Your task to perform on an android device: Open Google Maps and go to "Timeline" Image 0: 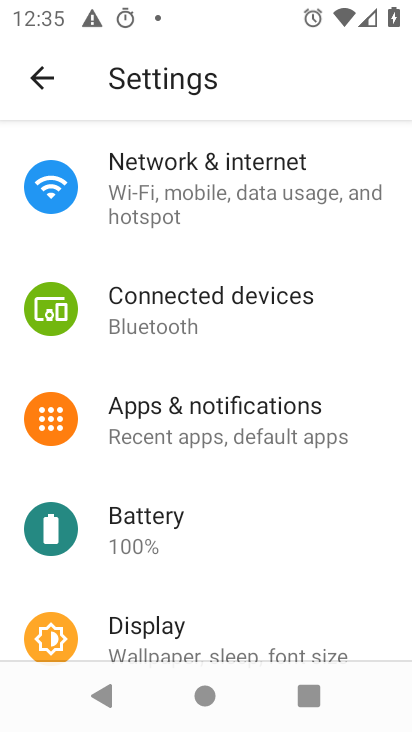
Step 0: press back button
Your task to perform on an android device: Open Google Maps and go to "Timeline" Image 1: 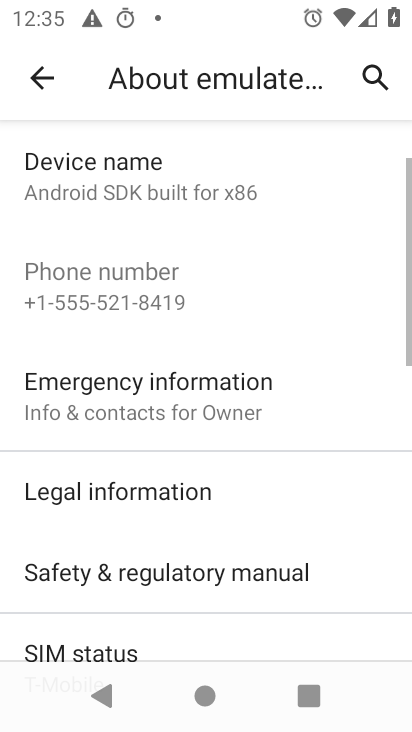
Step 1: press back button
Your task to perform on an android device: Open Google Maps and go to "Timeline" Image 2: 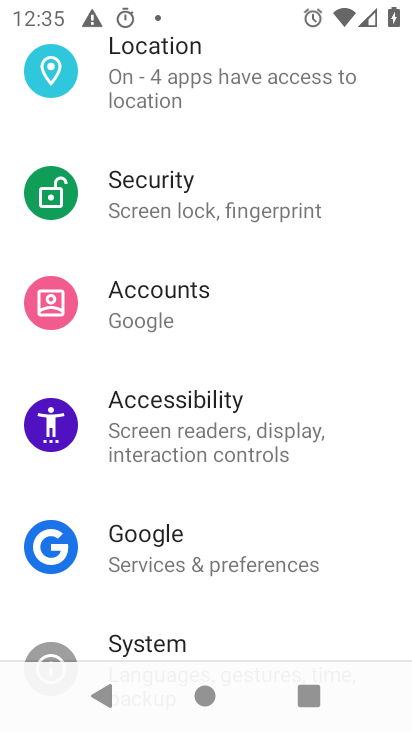
Step 2: press back button
Your task to perform on an android device: Open Google Maps and go to "Timeline" Image 3: 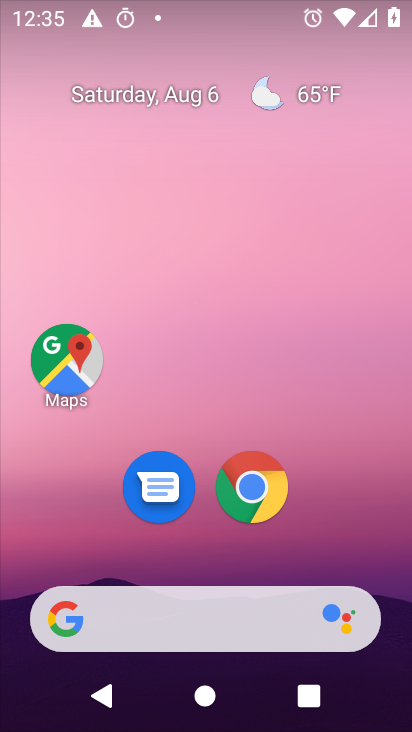
Step 3: click (64, 363)
Your task to perform on an android device: Open Google Maps and go to "Timeline" Image 4: 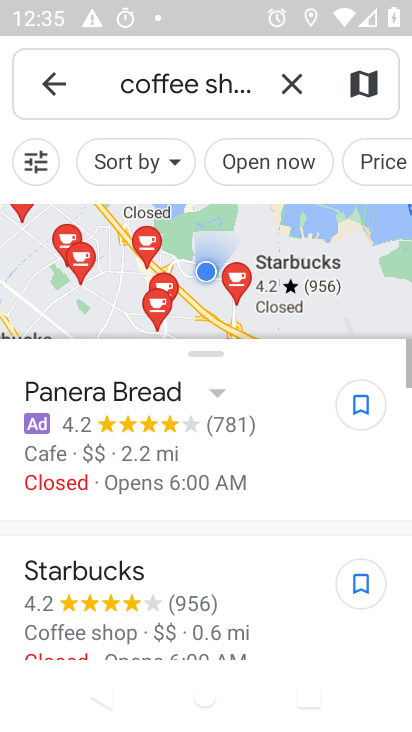
Step 4: click (64, 90)
Your task to perform on an android device: Open Google Maps and go to "Timeline" Image 5: 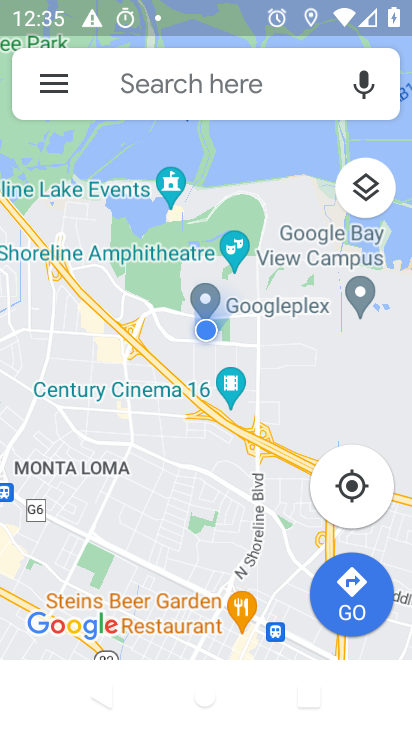
Step 5: press back button
Your task to perform on an android device: Open Google Maps and go to "Timeline" Image 6: 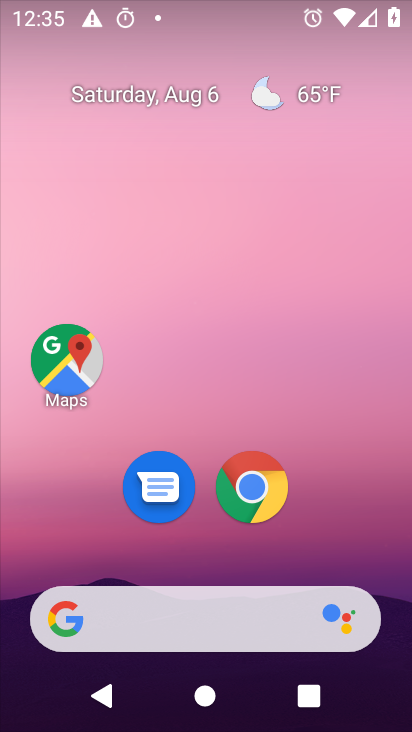
Step 6: drag from (243, 559) to (276, 25)
Your task to perform on an android device: Open Google Maps and go to "Timeline" Image 7: 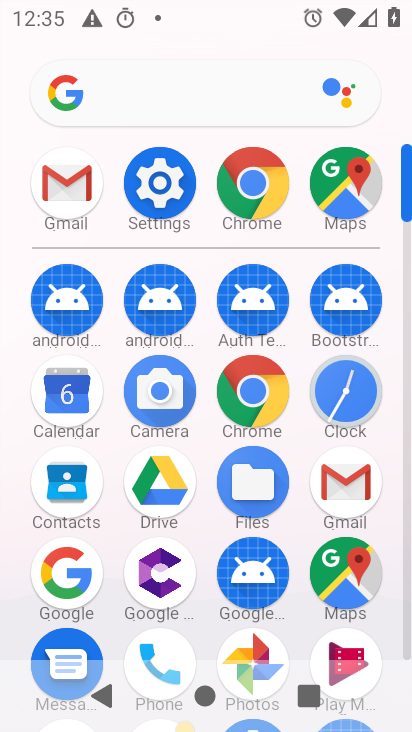
Step 7: click (354, 170)
Your task to perform on an android device: Open Google Maps and go to "Timeline" Image 8: 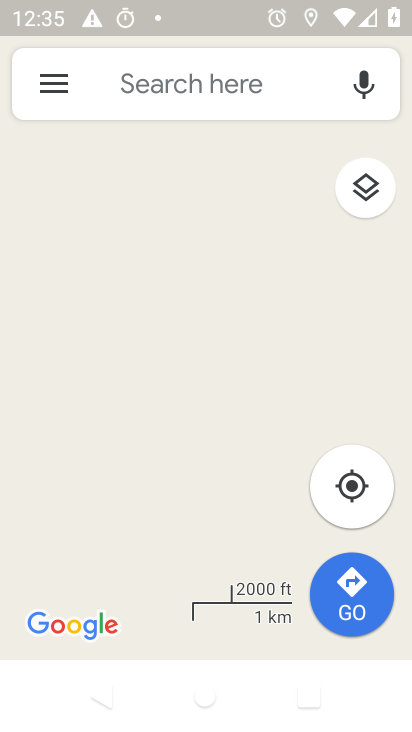
Step 8: click (52, 65)
Your task to perform on an android device: Open Google Maps and go to "Timeline" Image 9: 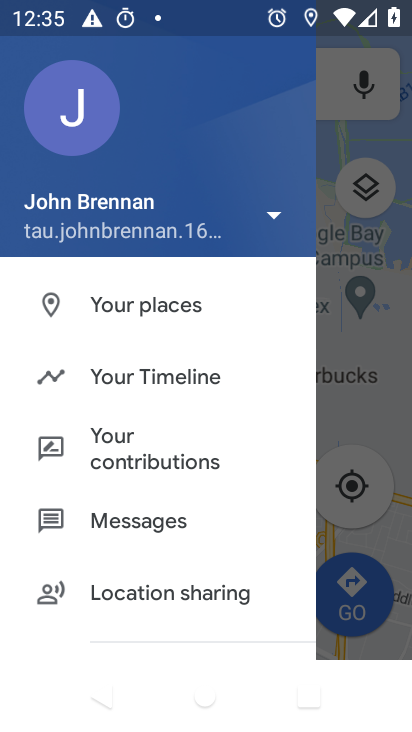
Step 9: click (127, 383)
Your task to perform on an android device: Open Google Maps and go to "Timeline" Image 10: 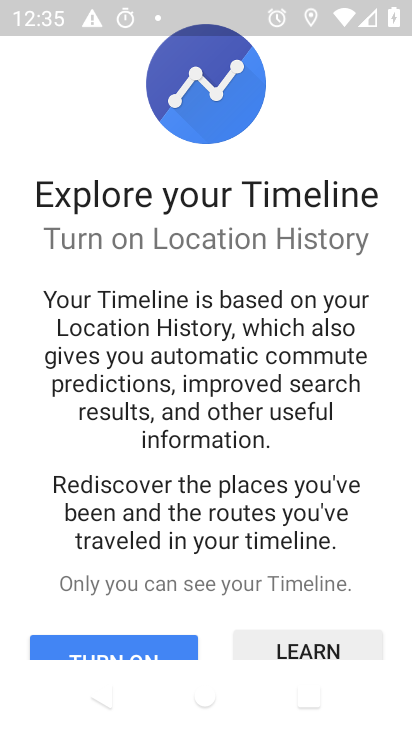
Step 10: task complete